Your task to perform on an android device: clear history in the chrome app Image 0: 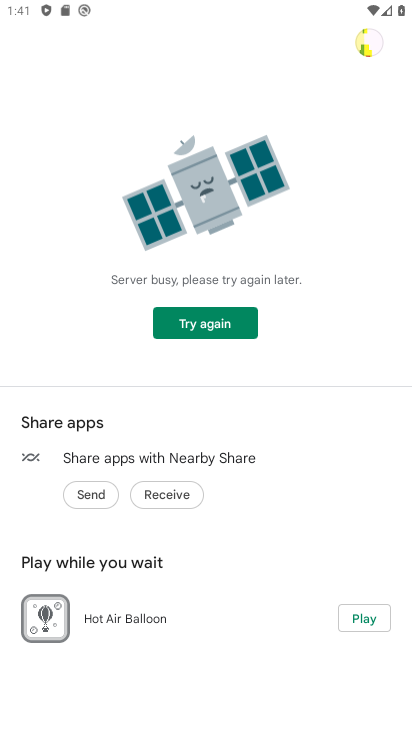
Step 0: press home button
Your task to perform on an android device: clear history in the chrome app Image 1: 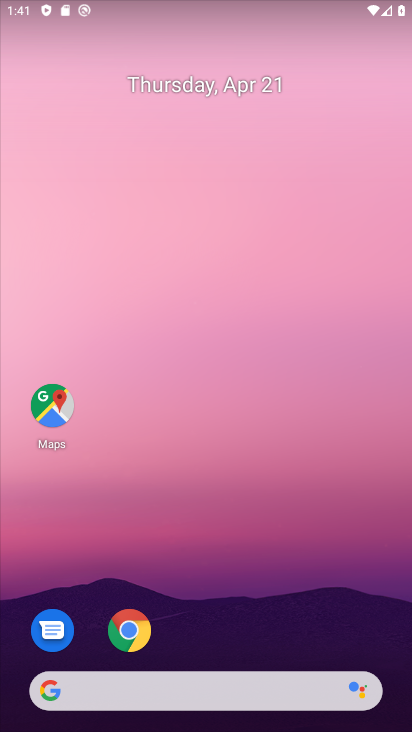
Step 1: click (133, 631)
Your task to perform on an android device: clear history in the chrome app Image 2: 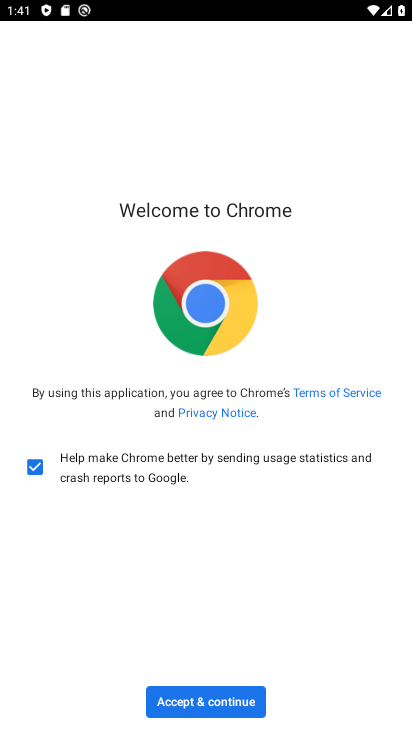
Step 2: click (204, 702)
Your task to perform on an android device: clear history in the chrome app Image 3: 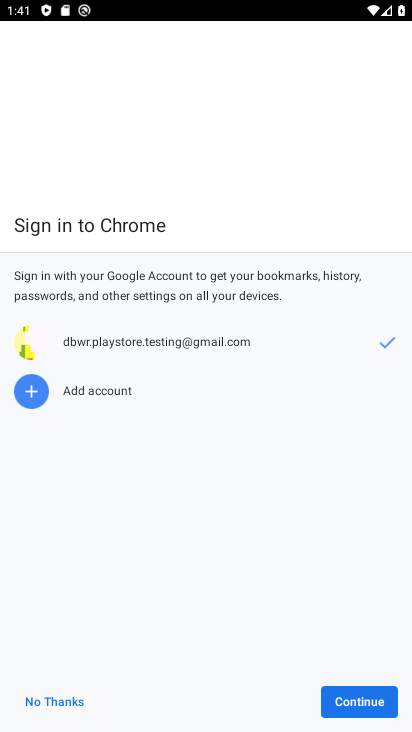
Step 3: click (68, 704)
Your task to perform on an android device: clear history in the chrome app Image 4: 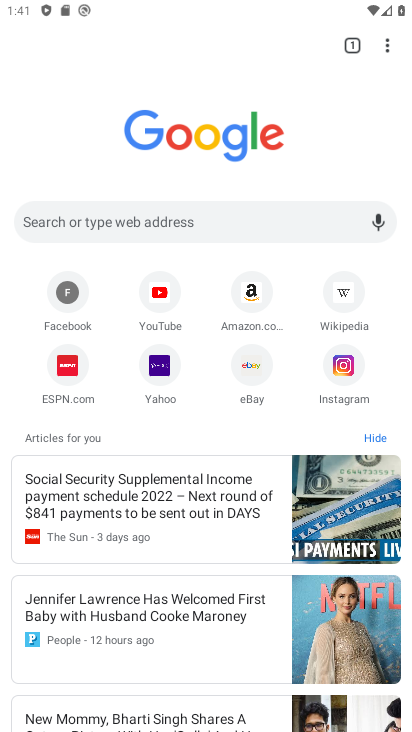
Step 4: click (385, 42)
Your task to perform on an android device: clear history in the chrome app Image 5: 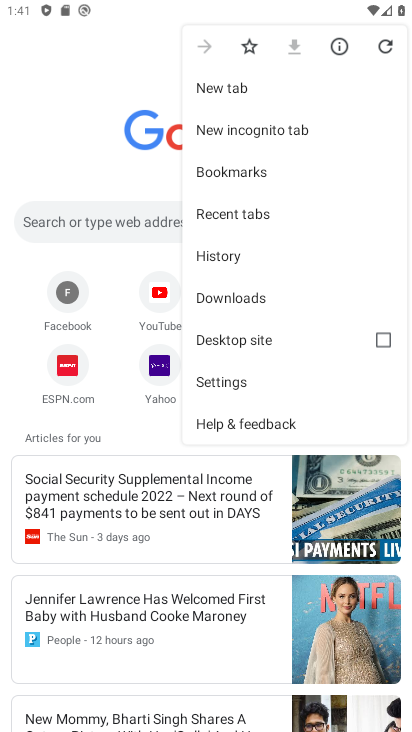
Step 5: click (200, 254)
Your task to perform on an android device: clear history in the chrome app Image 6: 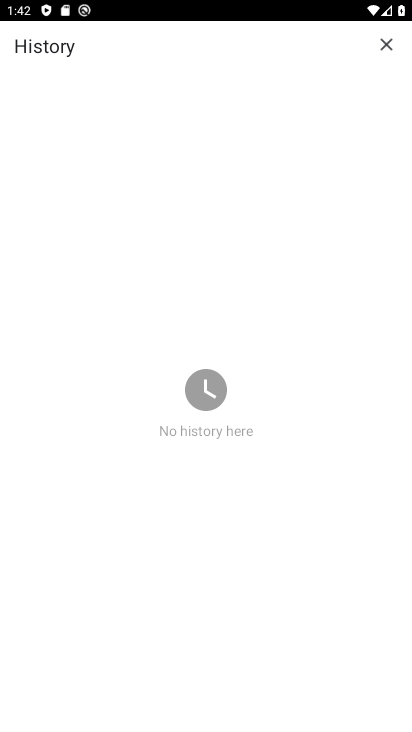
Step 6: task complete